Your task to perform on an android device: open app "McDonald's" (install if not already installed) and enter user name: "copes@yahoo.com" and password: "Rhenish" Image 0: 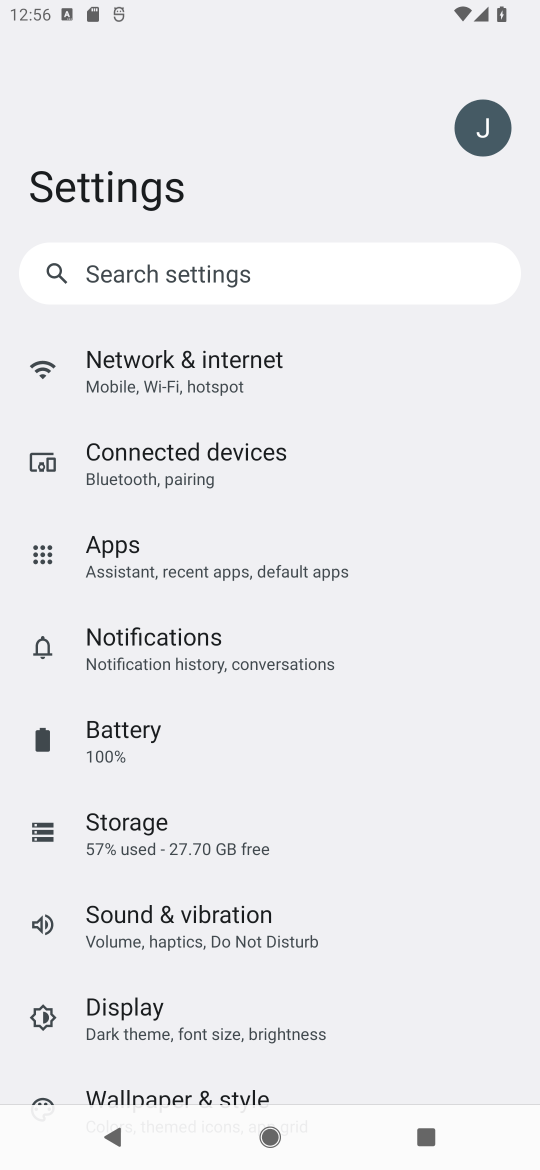
Step 0: press home button
Your task to perform on an android device: open app "McDonald's" (install if not already installed) and enter user name: "copes@yahoo.com" and password: "Rhenish" Image 1: 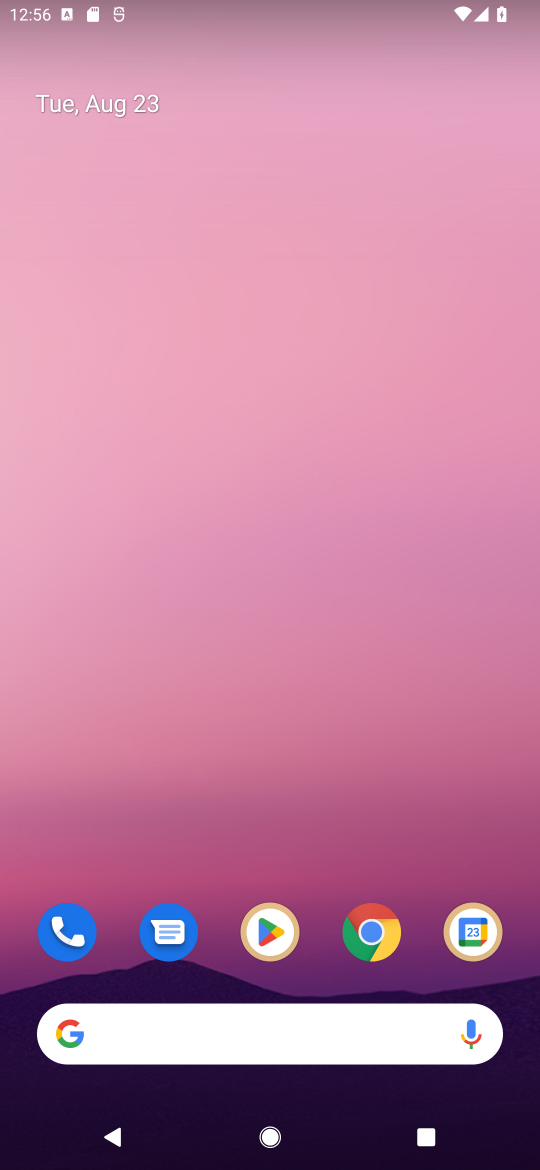
Step 1: click (254, 927)
Your task to perform on an android device: open app "McDonald's" (install if not already installed) and enter user name: "copes@yahoo.com" and password: "Rhenish" Image 2: 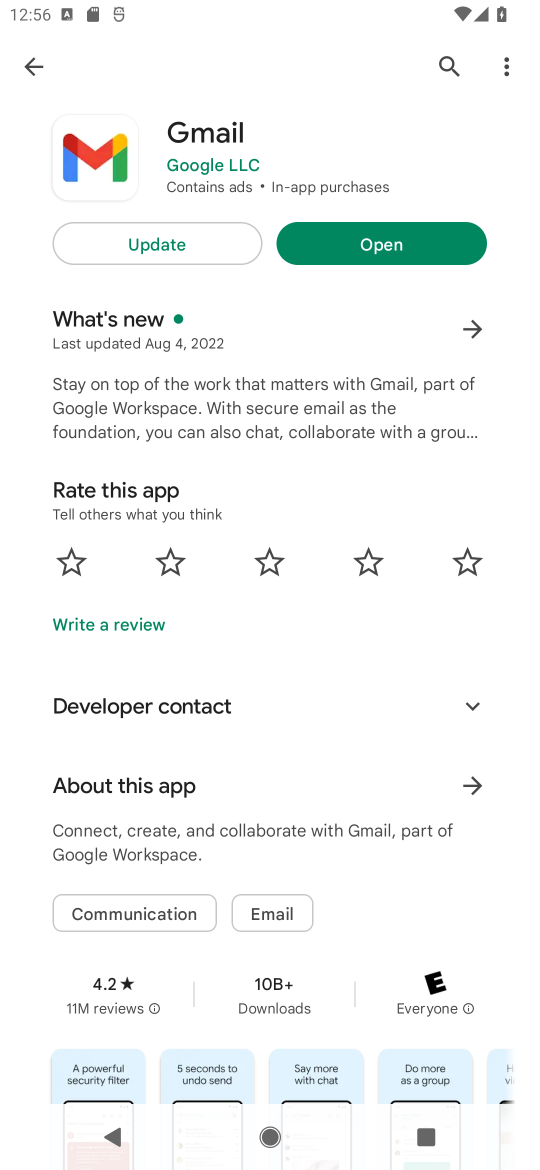
Step 2: click (441, 61)
Your task to perform on an android device: open app "McDonald's" (install if not already installed) and enter user name: "copes@yahoo.com" and password: "Rhenish" Image 3: 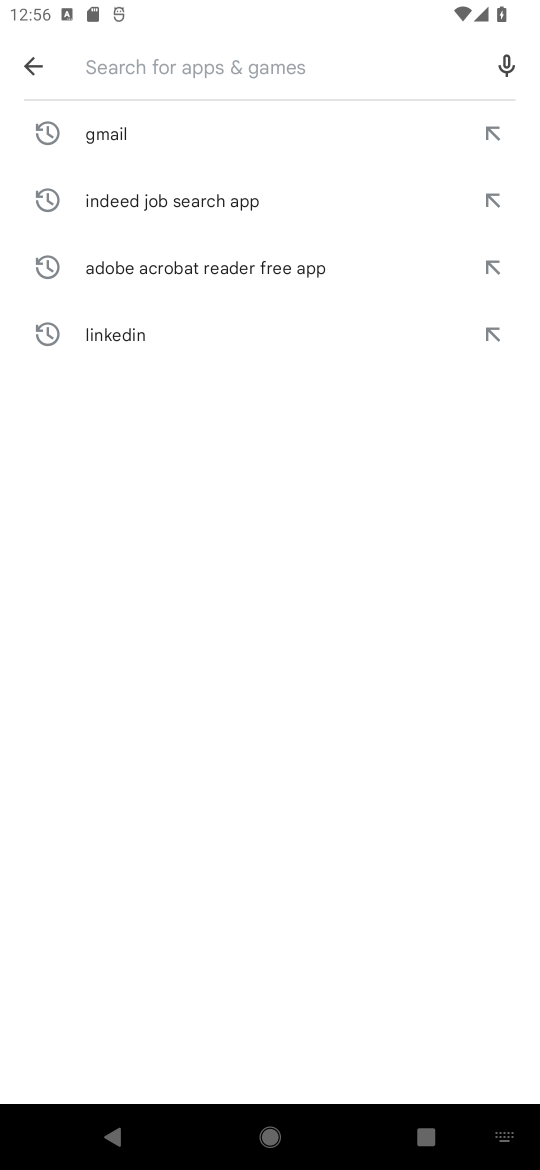
Step 3: click (207, 77)
Your task to perform on an android device: open app "McDonald's" (install if not already installed) and enter user name: "copes@yahoo.com" and password: "Rhenish" Image 4: 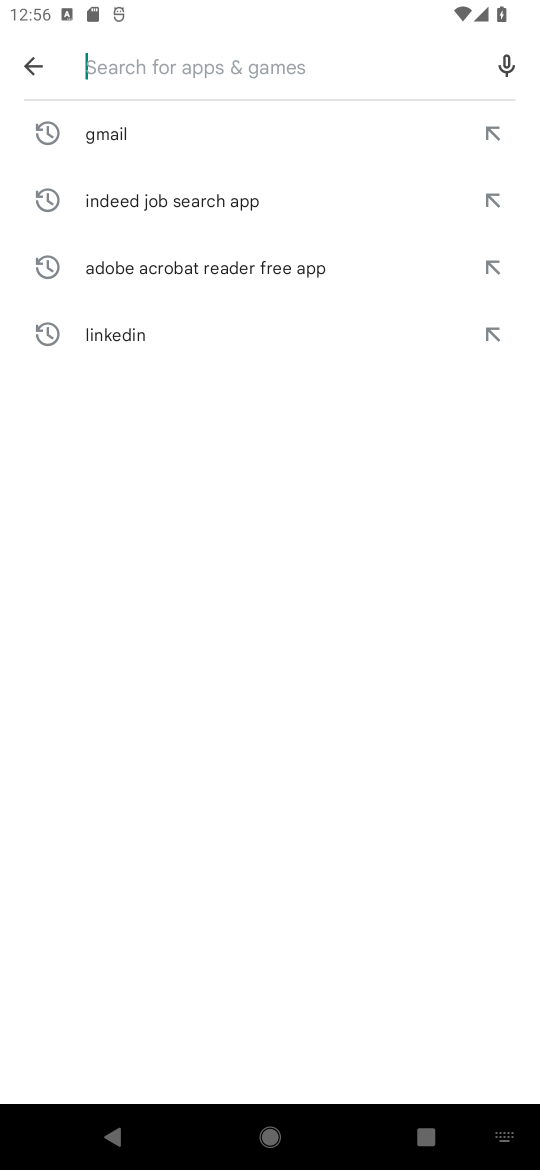
Step 4: type "McDonald's"
Your task to perform on an android device: open app "McDonald's" (install if not already installed) and enter user name: "copes@yahoo.com" and password: "Rhenish" Image 5: 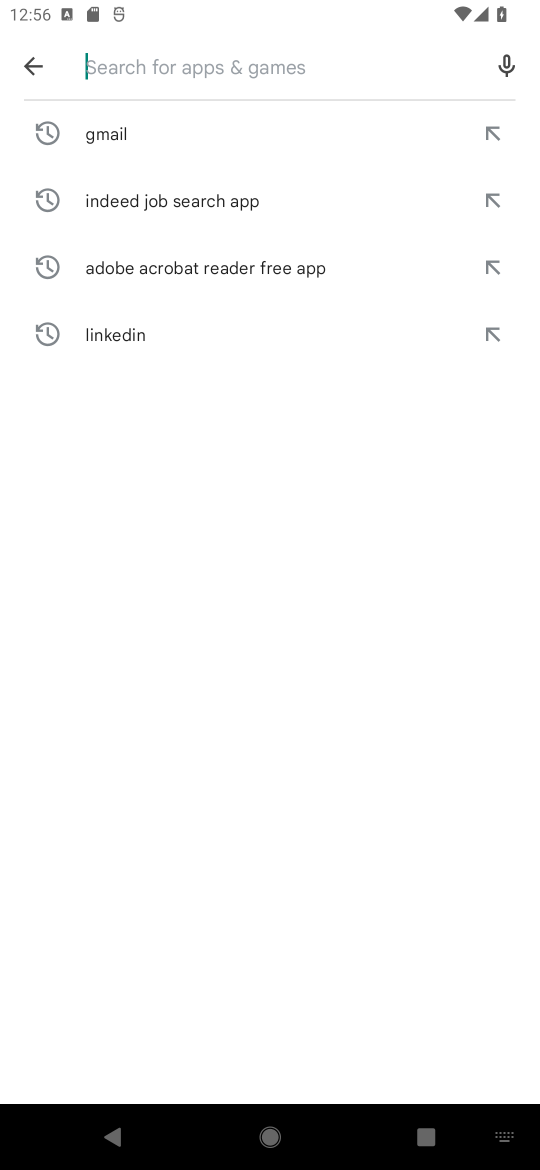
Step 5: click (378, 611)
Your task to perform on an android device: open app "McDonald's" (install if not already installed) and enter user name: "copes@yahoo.com" and password: "Rhenish" Image 6: 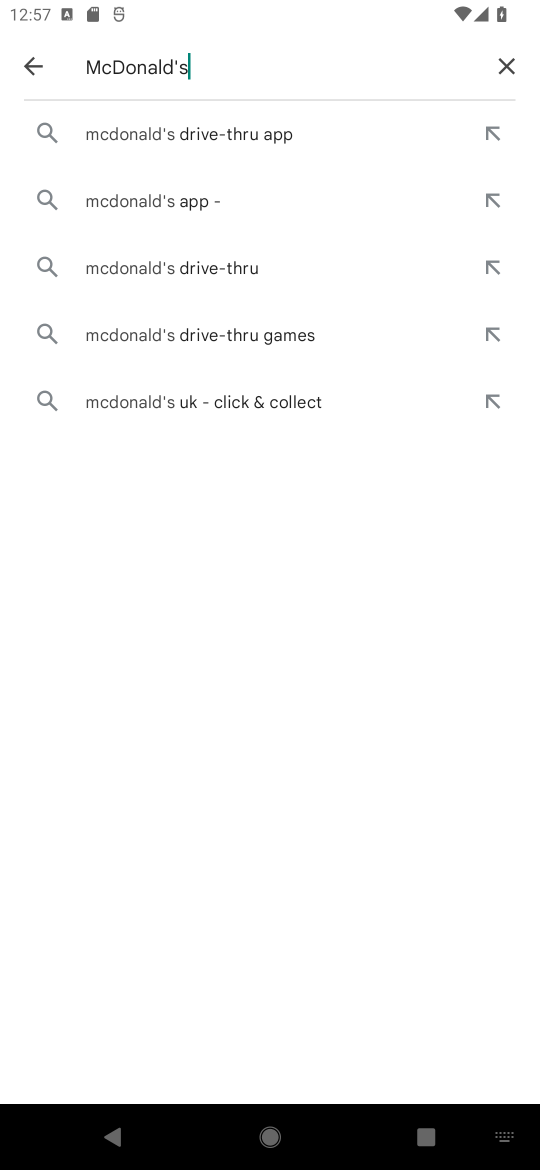
Step 6: click (191, 133)
Your task to perform on an android device: open app "McDonald's" (install if not already installed) and enter user name: "copes@yahoo.com" and password: "Rhenish" Image 7: 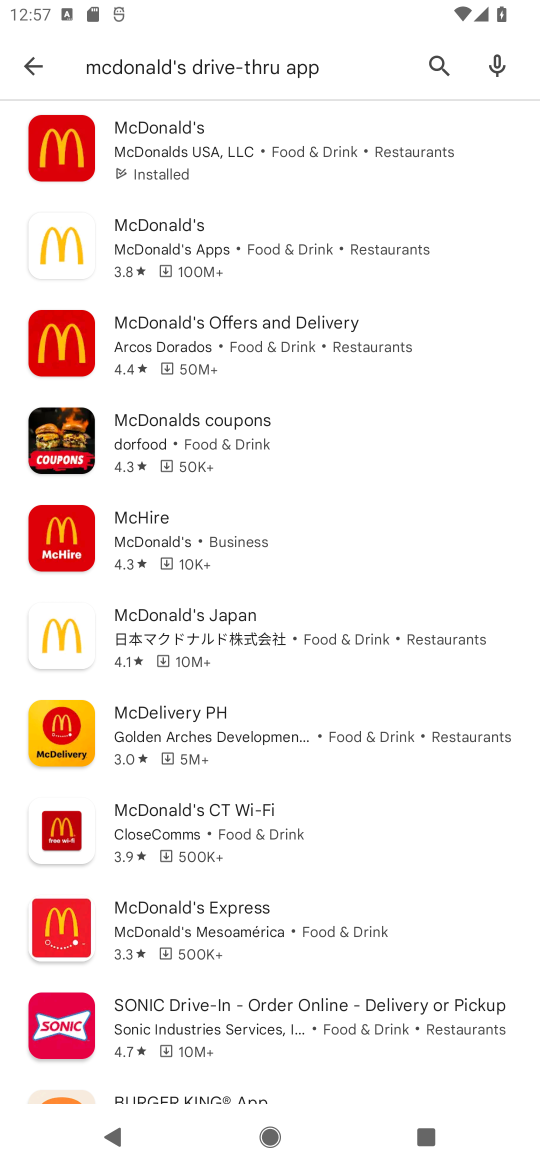
Step 7: click (208, 138)
Your task to perform on an android device: open app "McDonald's" (install if not already installed) and enter user name: "copes@yahoo.com" and password: "Rhenish" Image 8: 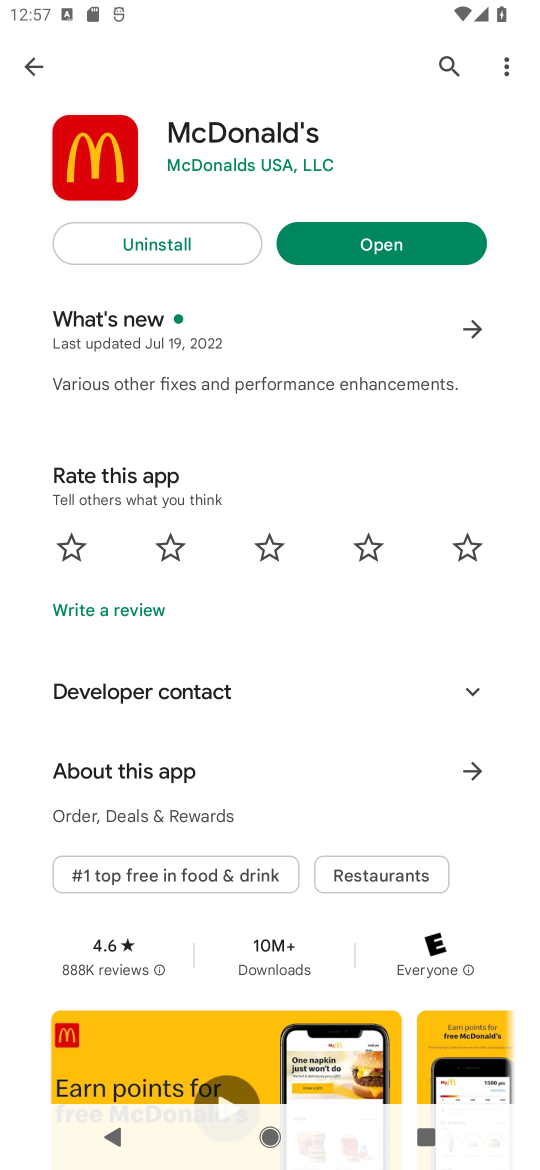
Step 8: click (398, 249)
Your task to perform on an android device: open app "McDonald's" (install if not already installed) and enter user name: "copes@yahoo.com" and password: "Rhenish" Image 9: 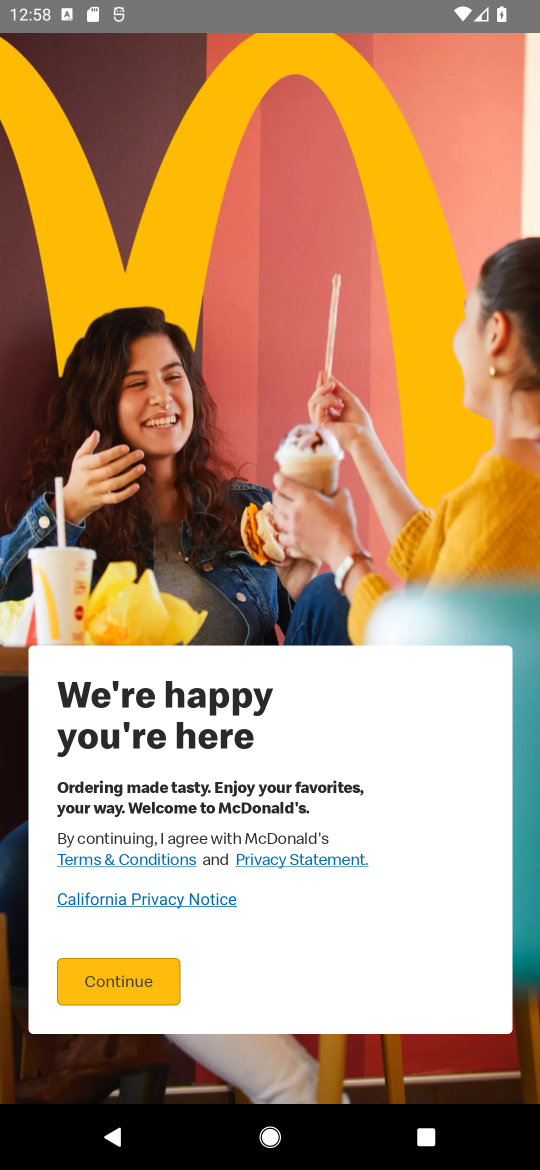
Step 9: click (117, 989)
Your task to perform on an android device: open app "McDonald's" (install if not already installed) and enter user name: "copes@yahoo.com" and password: "Rhenish" Image 10: 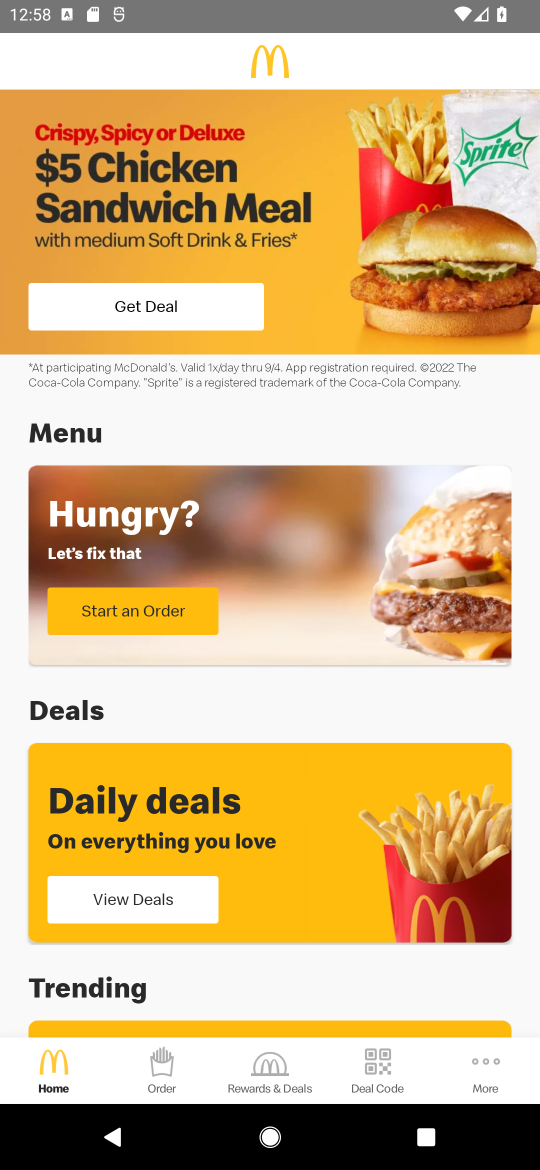
Step 10: click (488, 1066)
Your task to perform on an android device: open app "McDonald's" (install if not already installed) and enter user name: "copes@yahoo.com" and password: "Rhenish" Image 11: 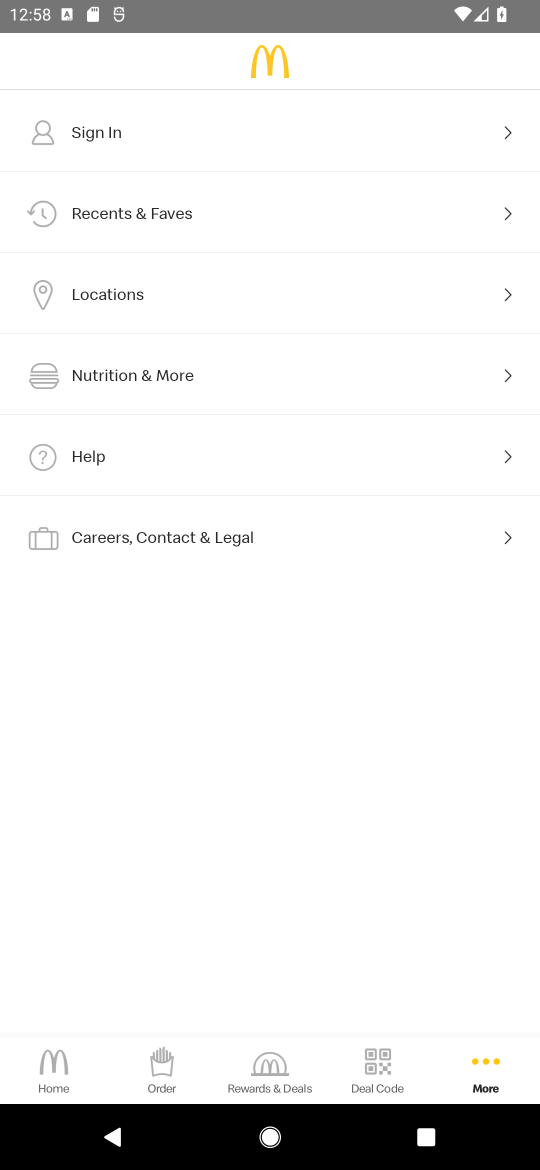
Step 11: click (116, 136)
Your task to perform on an android device: open app "McDonald's" (install if not already installed) and enter user name: "copes@yahoo.com" and password: "Rhenish" Image 12: 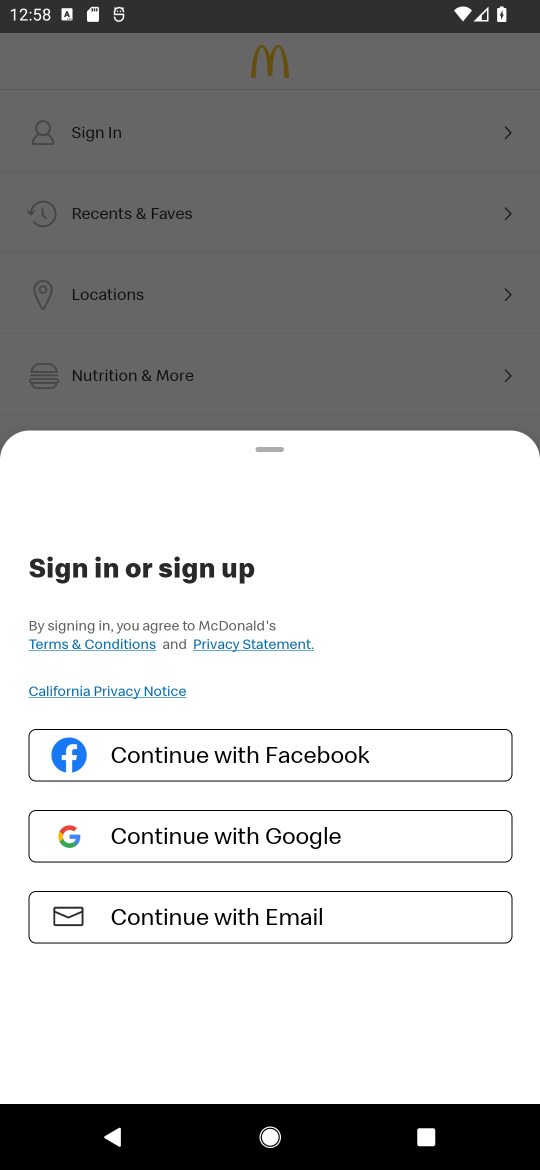
Step 12: click (222, 915)
Your task to perform on an android device: open app "McDonald's" (install if not already installed) and enter user name: "copes@yahoo.com" and password: "Rhenish" Image 13: 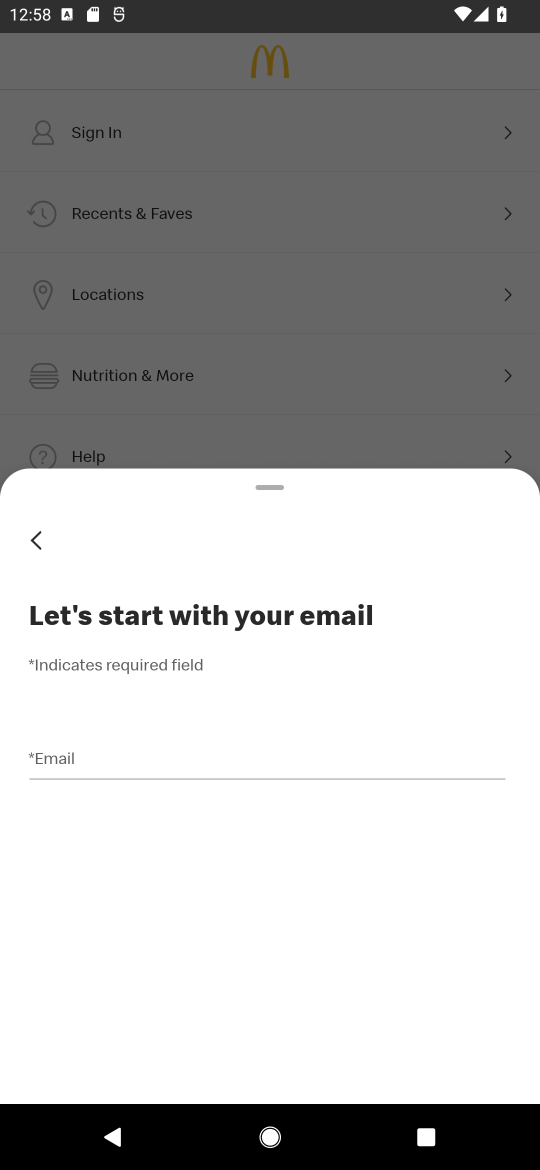
Step 13: click (66, 740)
Your task to perform on an android device: open app "McDonald's" (install if not already installed) and enter user name: "copes@yahoo.com" and password: "Rhenish" Image 14: 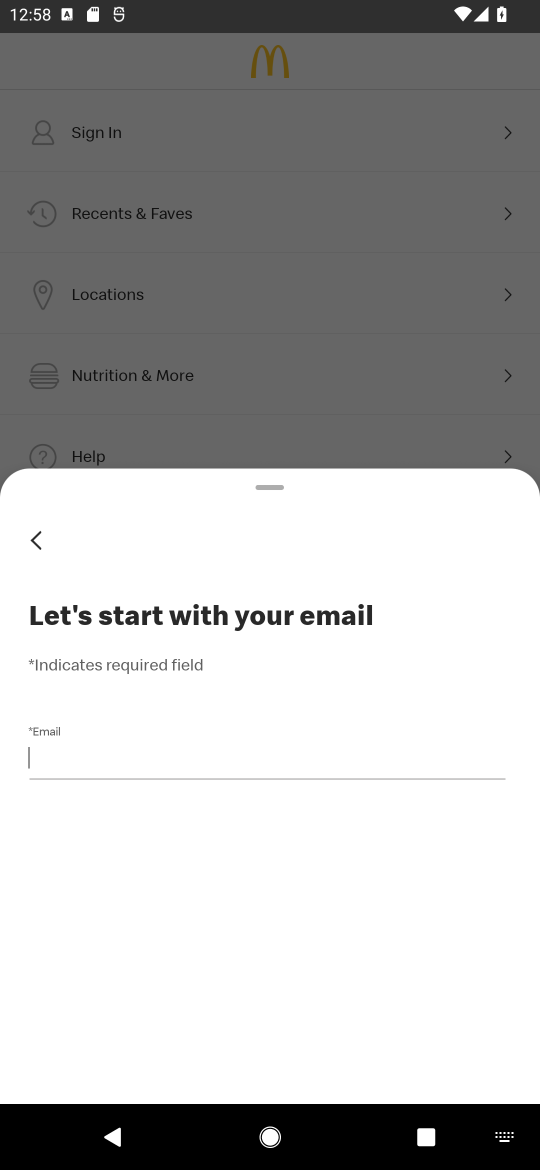
Step 14: type "copes@yahoo.com"
Your task to perform on an android device: open app "McDonald's" (install if not already installed) and enter user name: "copes@yahoo.com" and password: "Rhenish" Image 15: 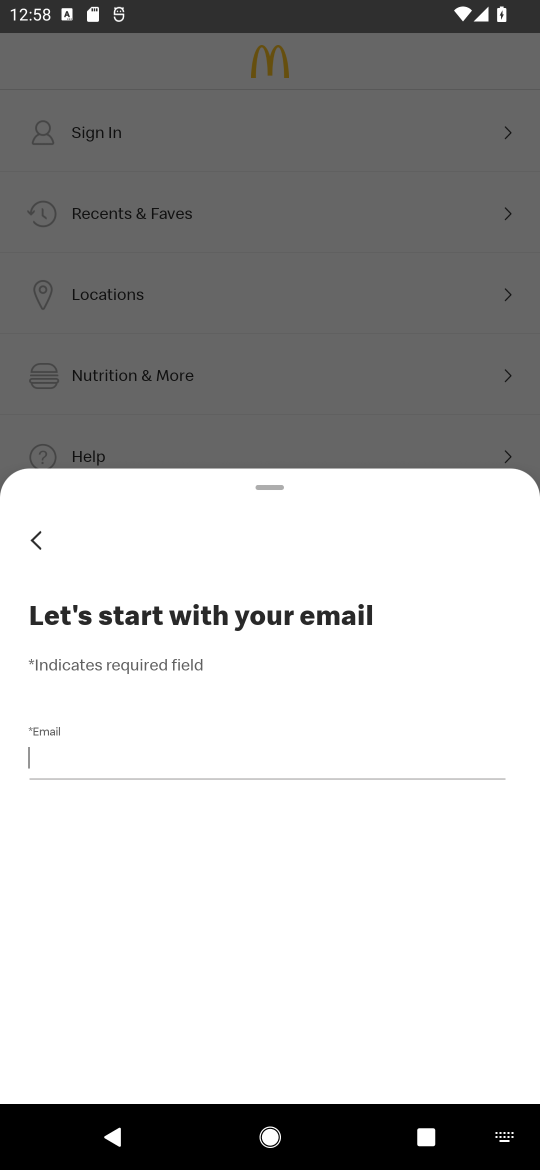
Step 15: click (283, 850)
Your task to perform on an android device: open app "McDonald's" (install if not already installed) and enter user name: "copes@yahoo.com" and password: "Rhenish" Image 16: 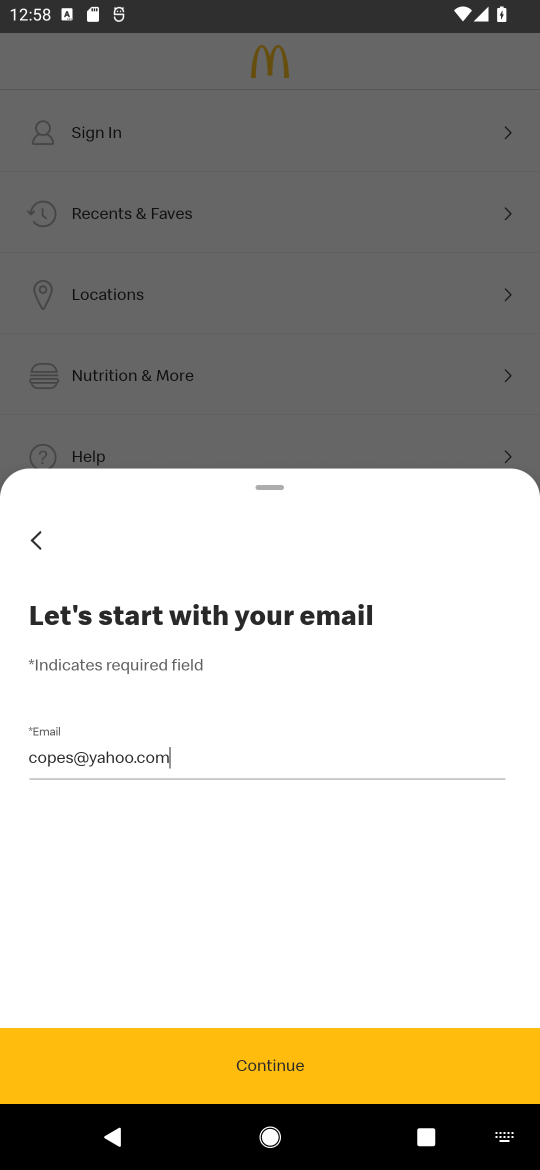
Step 16: click (236, 1050)
Your task to perform on an android device: open app "McDonald's" (install if not already installed) and enter user name: "copes@yahoo.com" and password: "Rhenish" Image 17: 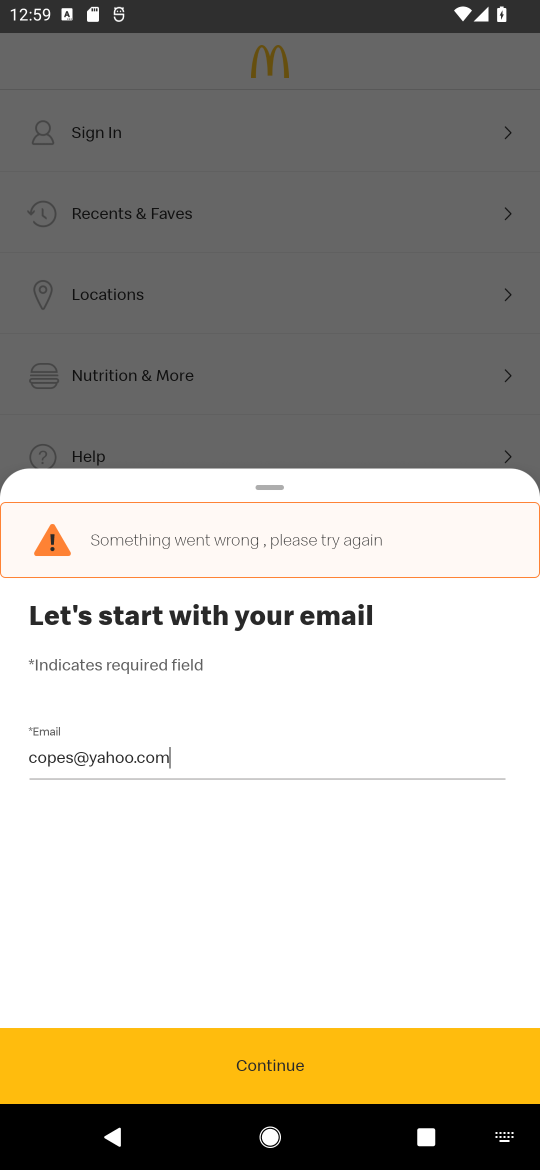
Step 17: task complete